Your task to perform on an android device: open chrome privacy settings Image 0: 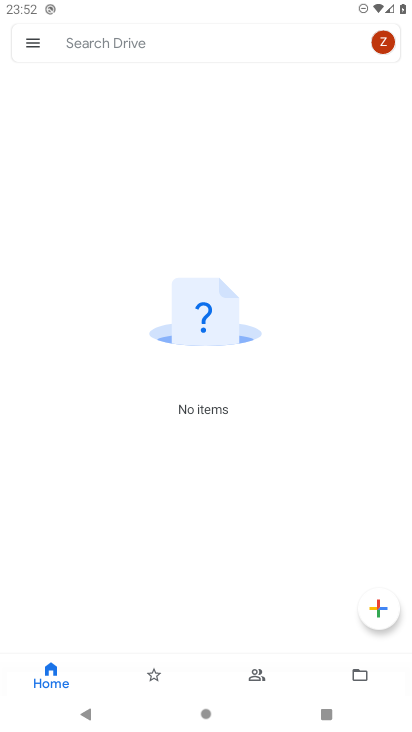
Step 0: press home button
Your task to perform on an android device: open chrome privacy settings Image 1: 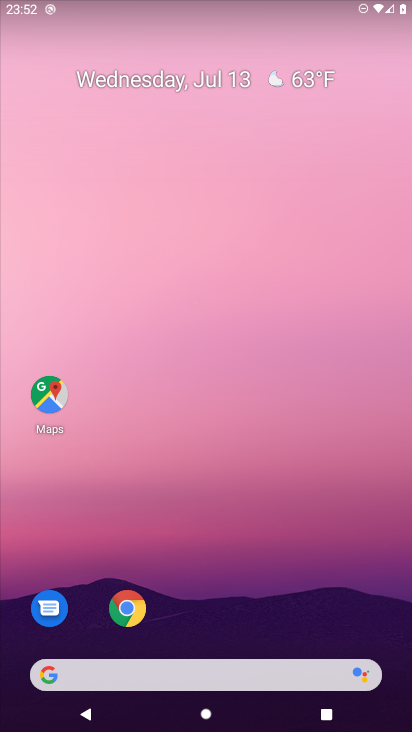
Step 1: drag from (187, 627) to (176, 75)
Your task to perform on an android device: open chrome privacy settings Image 2: 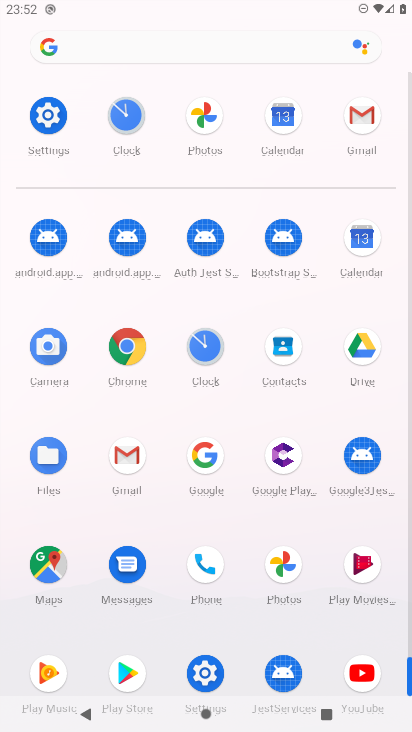
Step 2: click (133, 341)
Your task to perform on an android device: open chrome privacy settings Image 3: 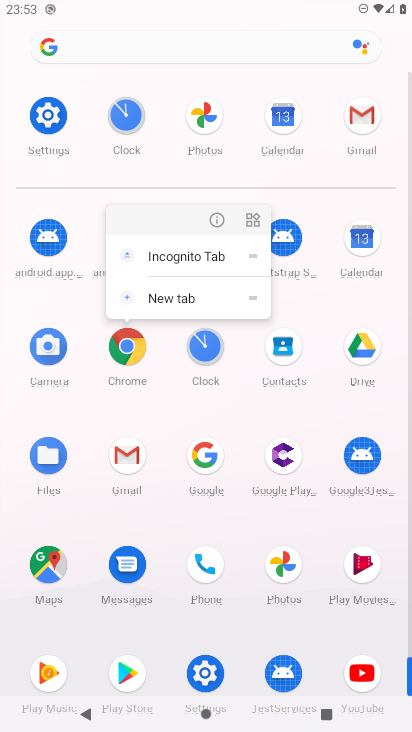
Step 3: click (128, 347)
Your task to perform on an android device: open chrome privacy settings Image 4: 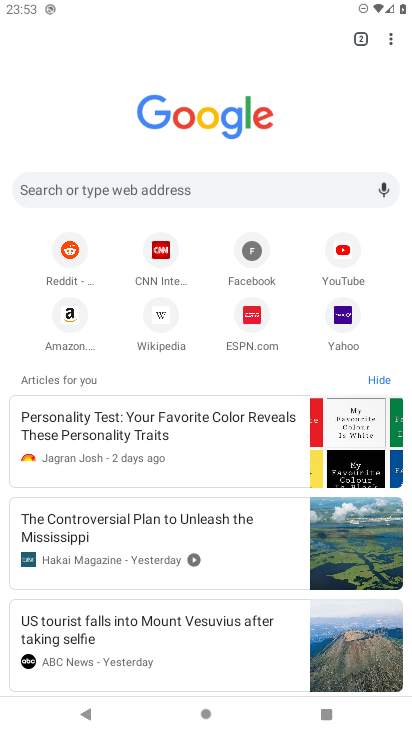
Step 4: click (388, 36)
Your task to perform on an android device: open chrome privacy settings Image 5: 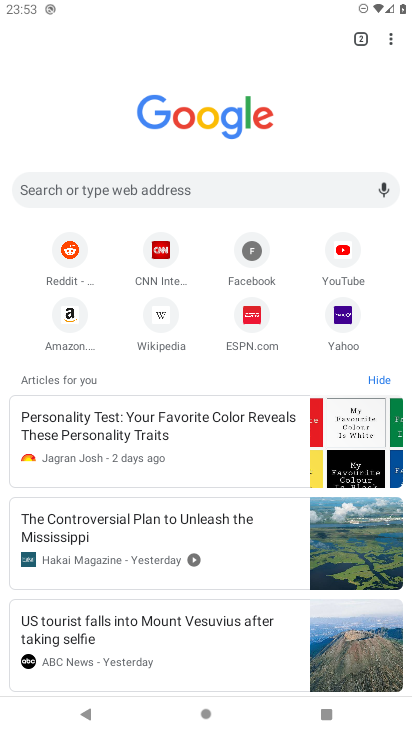
Step 5: drag from (388, 36) to (229, 328)
Your task to perform on an android device: open chrome privacy settings Image 6: 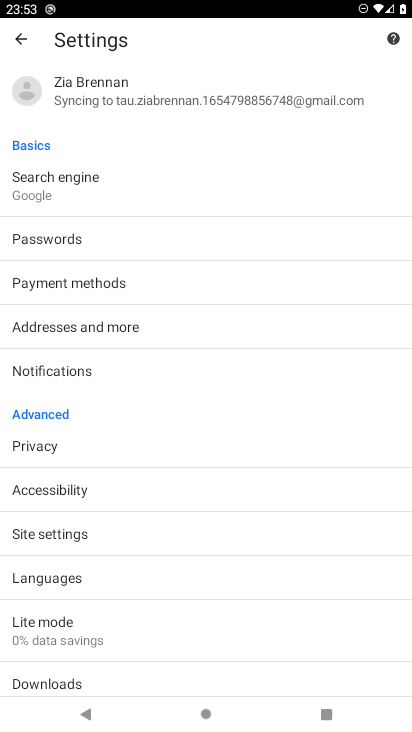
Step 6: click (32, 449)
Your task to perform on an android device: open chrome privacy settings Image 7: 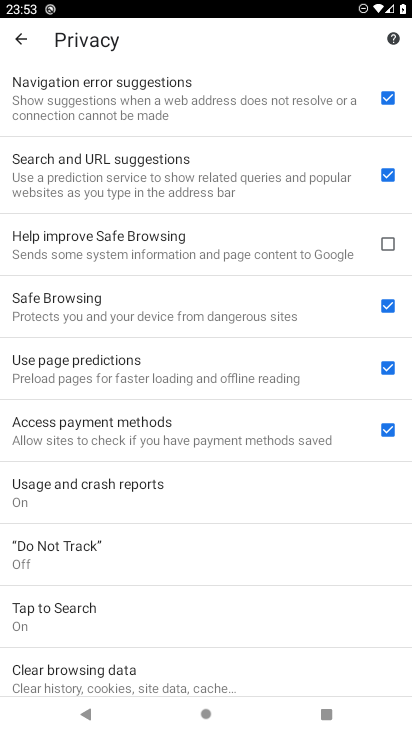
Step 7: task complete